Your task to perform on an android device: toggle sleep mode Image 0: 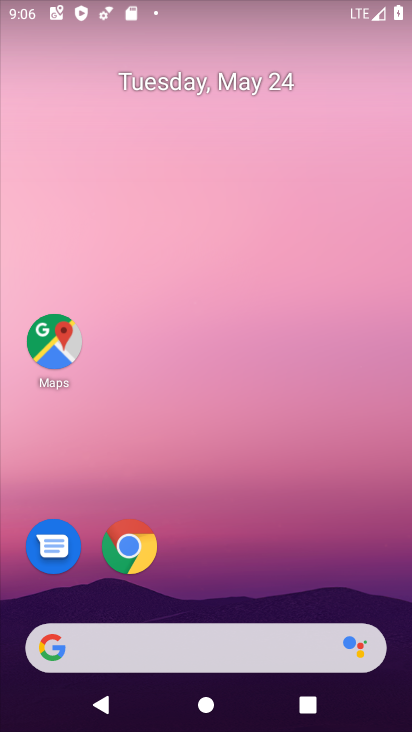
Step 0: drag from (245, 534) to (323, 5)
Your task to perform on an android device: toggle sleep mode Image 1: 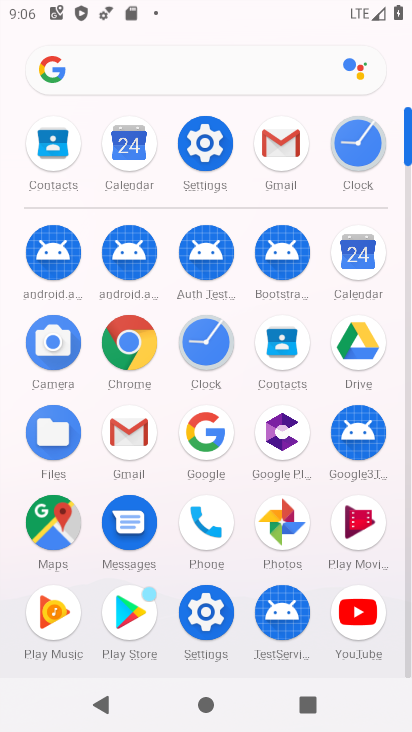
Step 1: click (219, 132)
Your task to perform on an android device: toggle sleep mode Image 2: 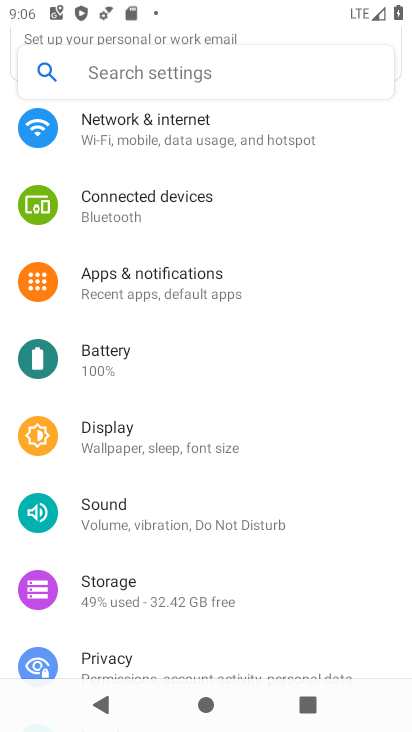
Step 2: click (168, 443)
Your task to perform on an android device: toggle sleep mode Image 3: 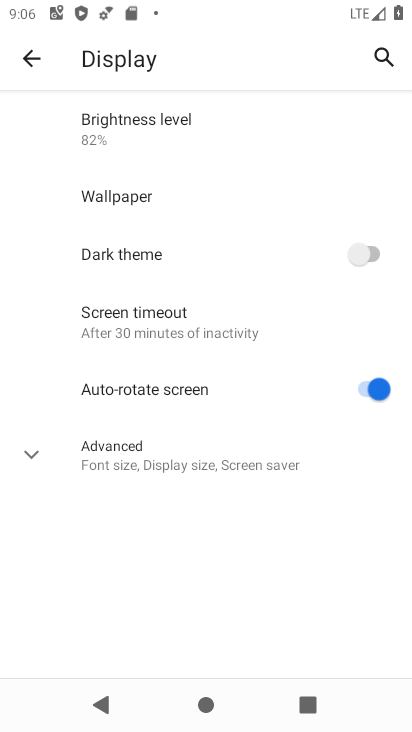
Step 3: click (35, 453)
Your task to perform on an android device: toggle sleep mode Image 4: 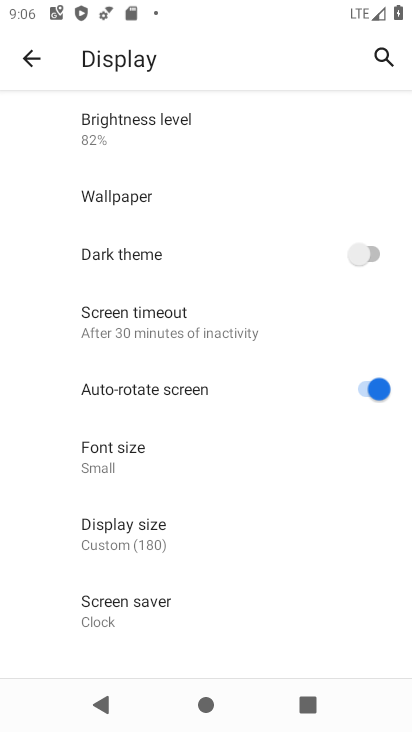
Step 4: task complete